Your task to perform on an android device: set the timer Image 0: 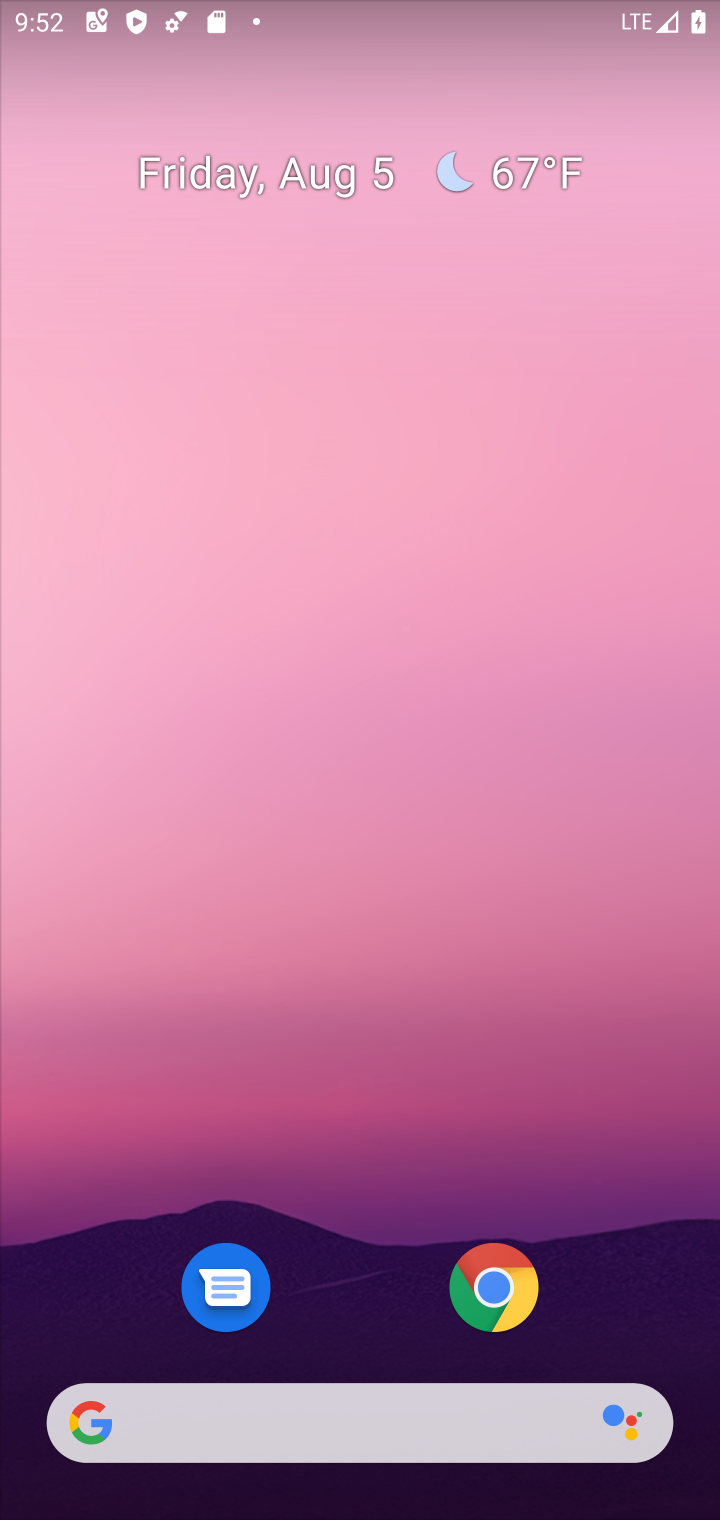
Step 0: drag from (371, 1229) to (419, 168)
Your task to perform on an android device: set the timer Image 1: 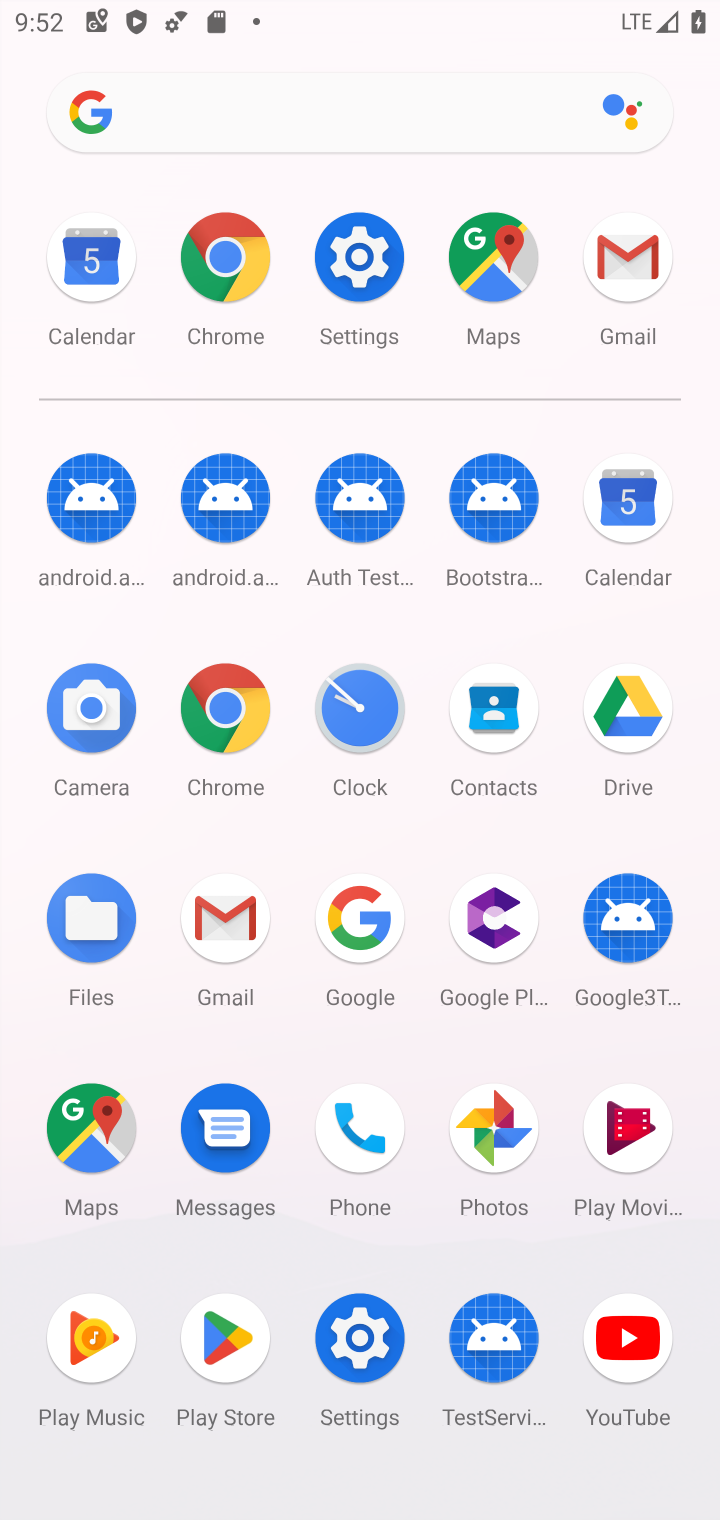
Step 1: click (359, 700)
Your task to perform on an android device: set the timer Image 2: 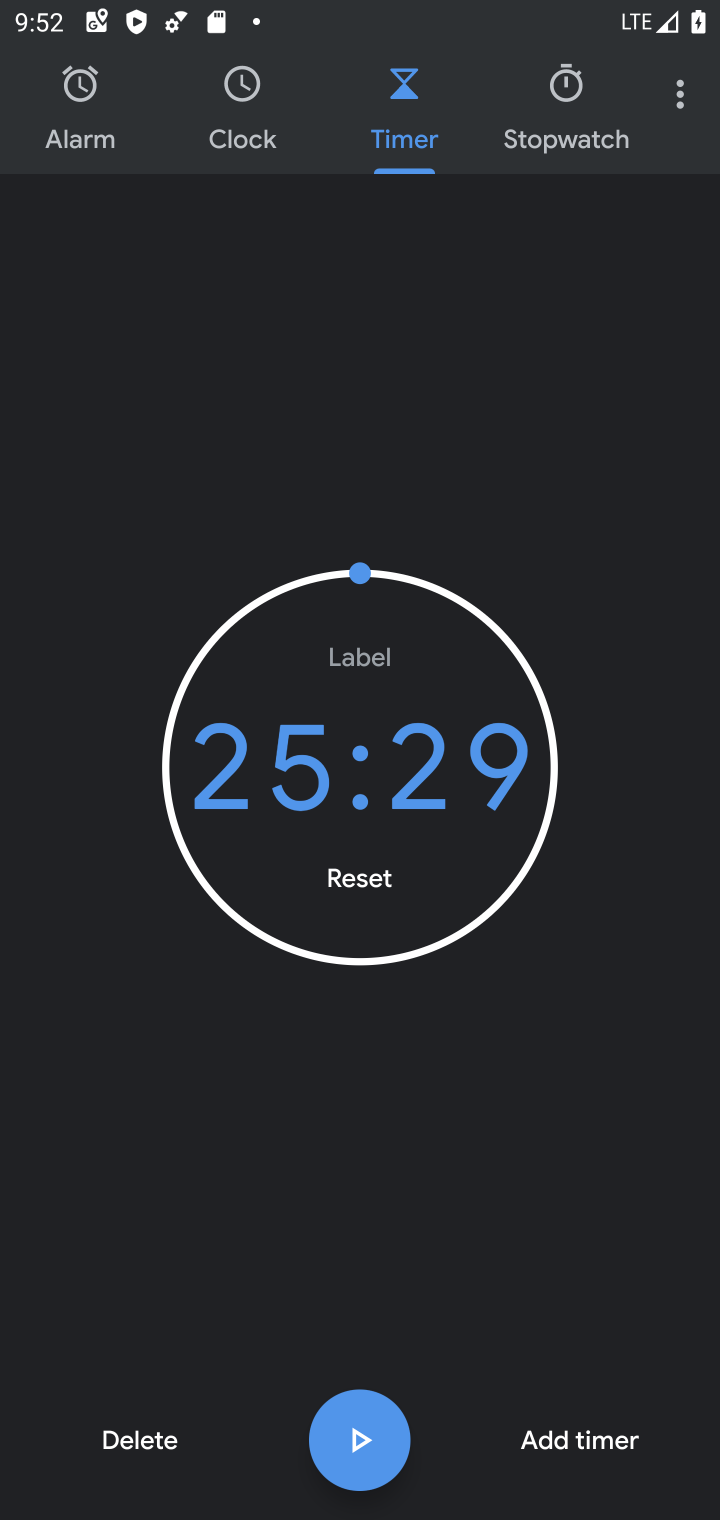
Step 2: click (554, 1442)
Your task to perform on an android device: set the timer Image 3: 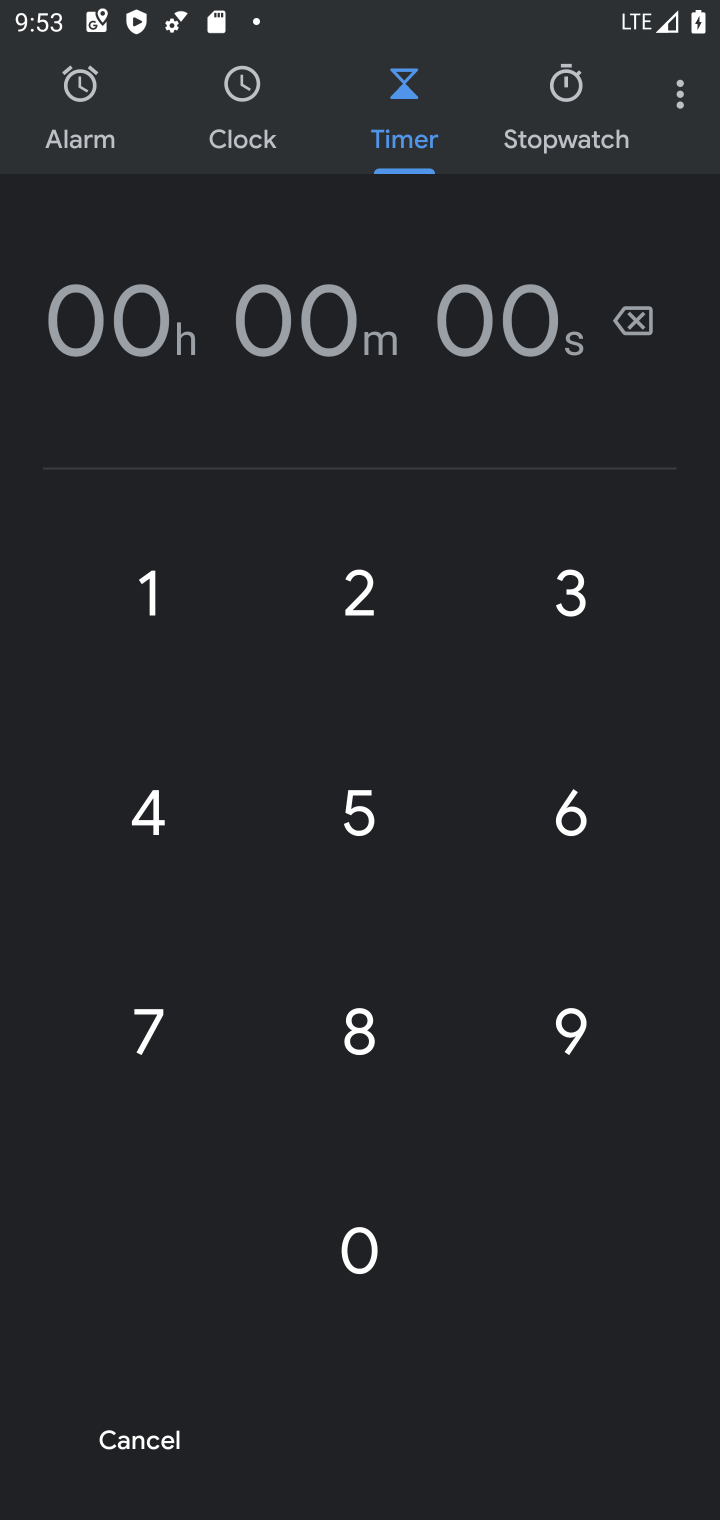
Step 3: click (367, 608)
Your task to perform on an android device: set the timer Image 4: 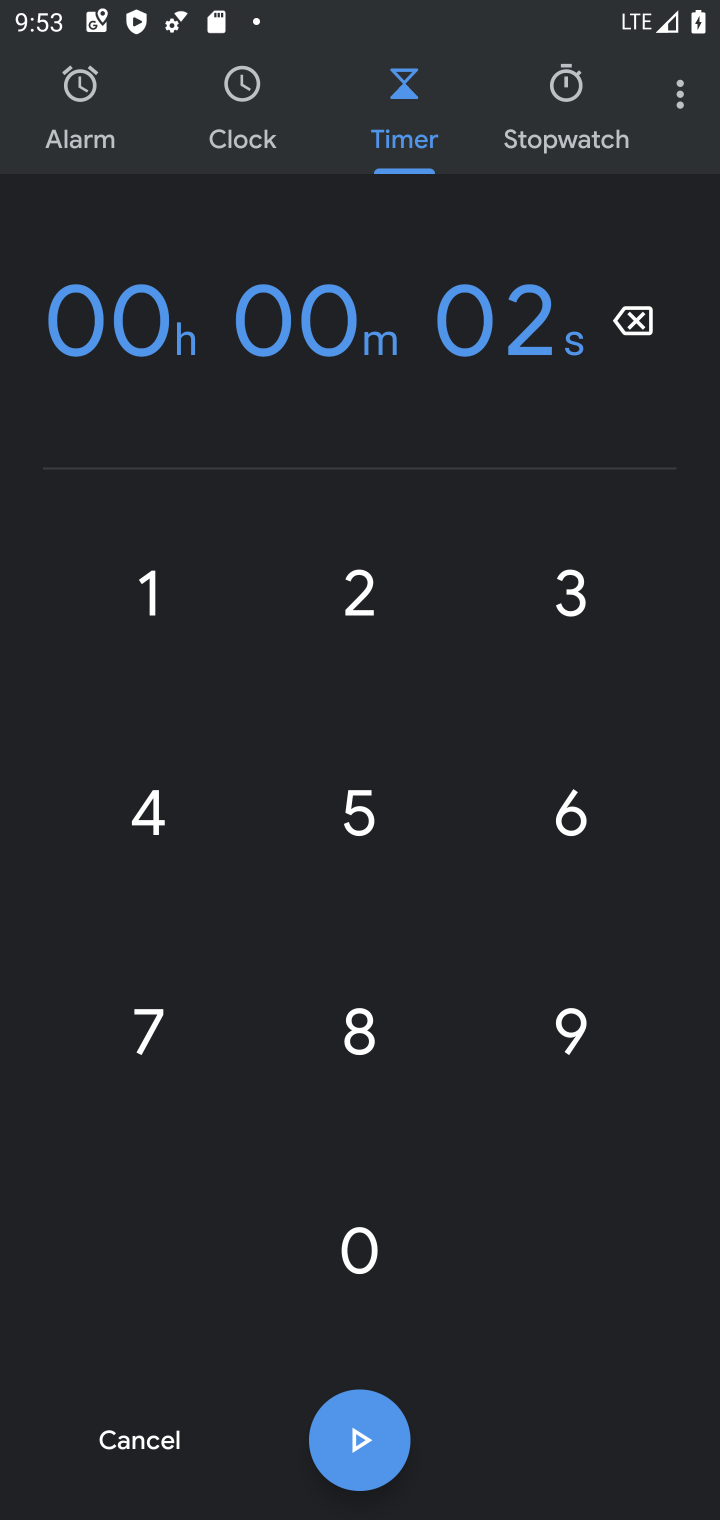
Step 4: click (358, 821)
Your task to perform on an android device: set the timer Image 5: 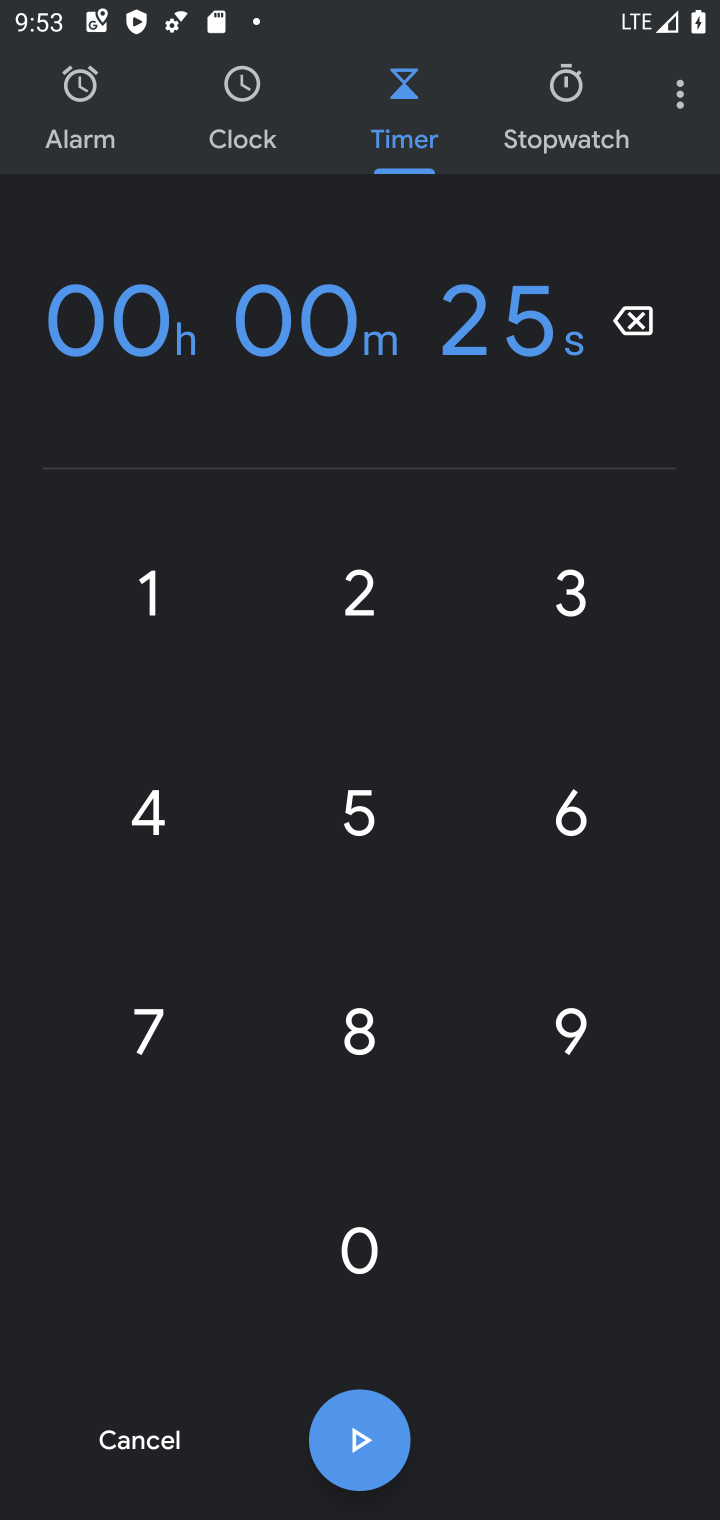
Step 5: click (352, 998)
Your task to perform on an android device: set the timer Image 6: 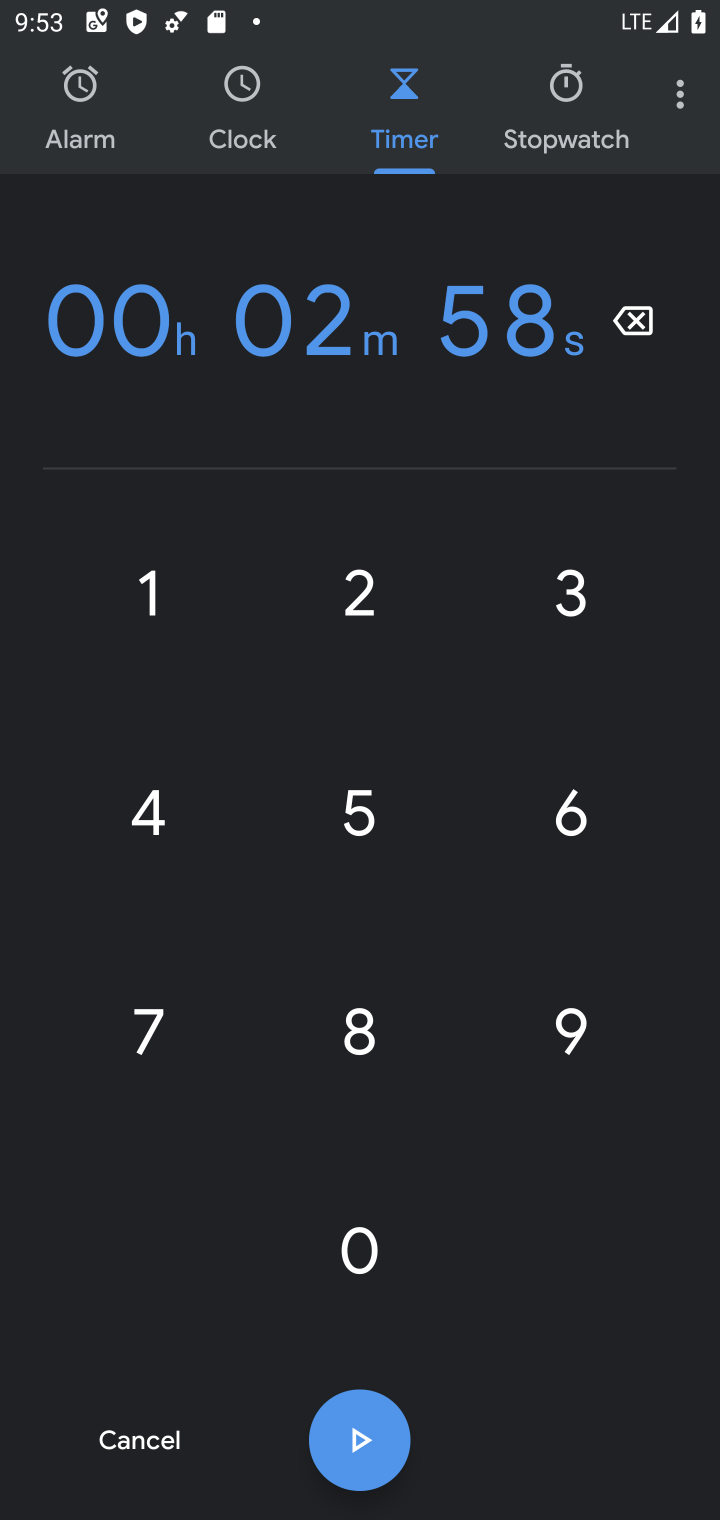
Step 6: click (366, 1446)
Your task to perform on an android device: set the timer Image 7: 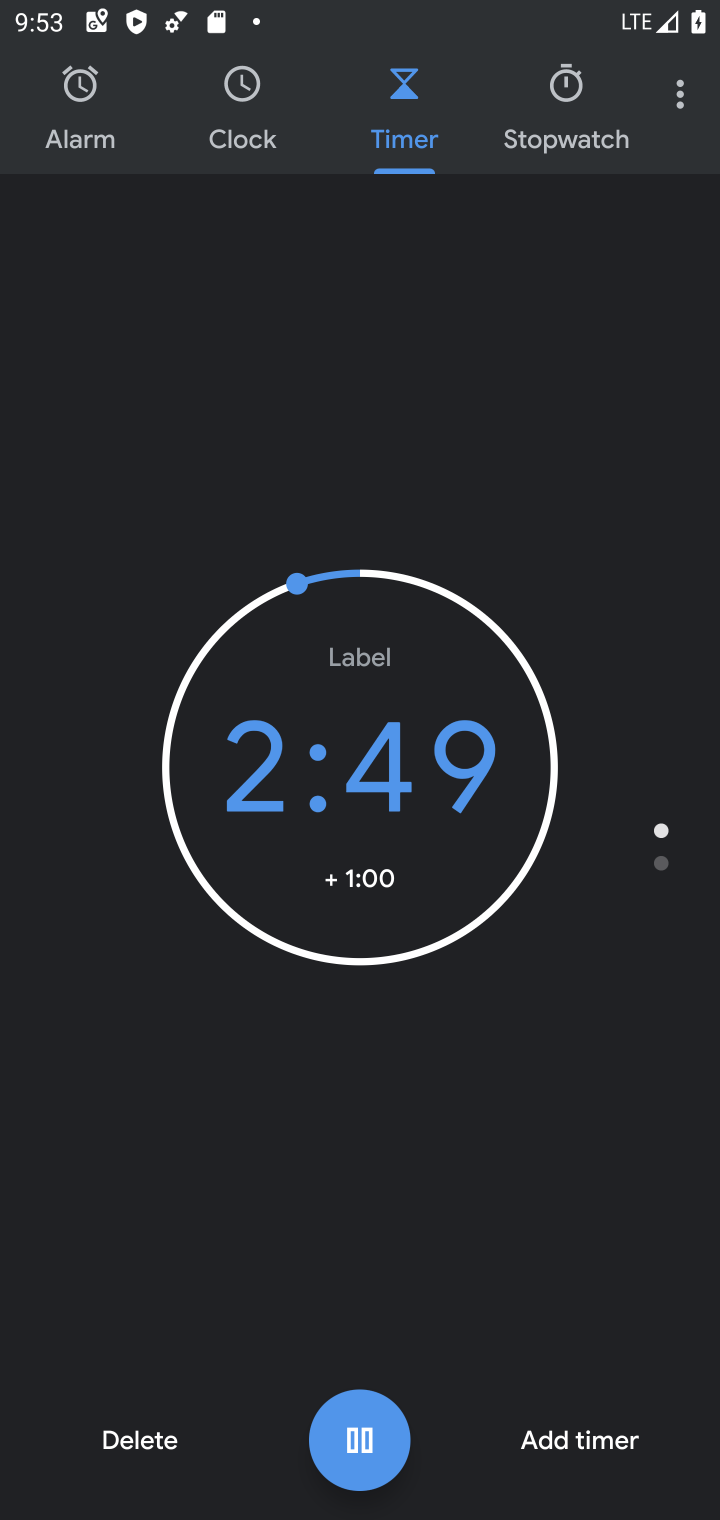
Step 7: task complete